Your task to perform on an android device: snooze an email in the gmail app Image 0: 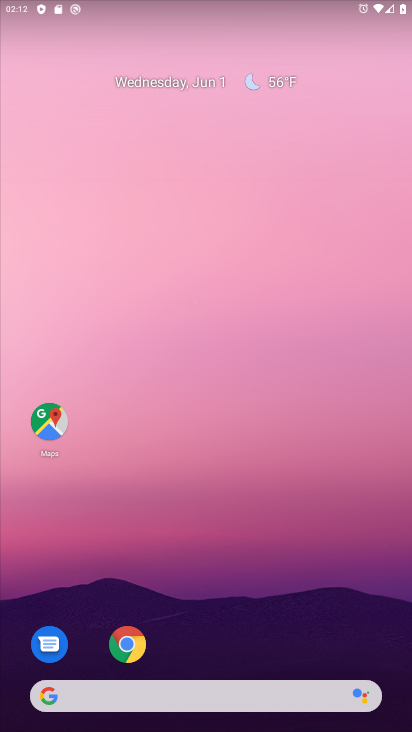
Step 0: drag from (179, 665) to (200, 210)
Your task to perform on an android device: snooze an email in the gmail app Image 1: 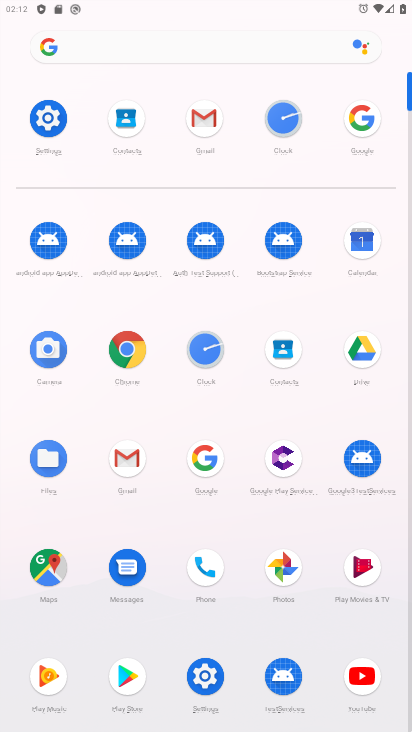
Step 1: click (189, 115)
Your task to perform on an android device: snooze an email in the gmail app Image 2: 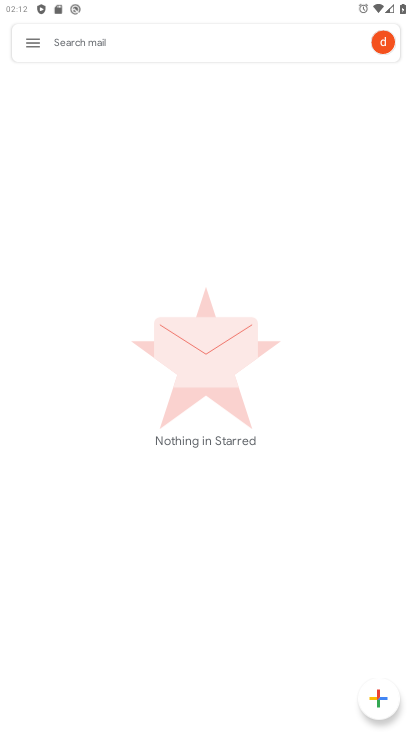
Step 2: click (31, 36)
Your task to perform on an android device: snooze an email in the gmail app Image 3: 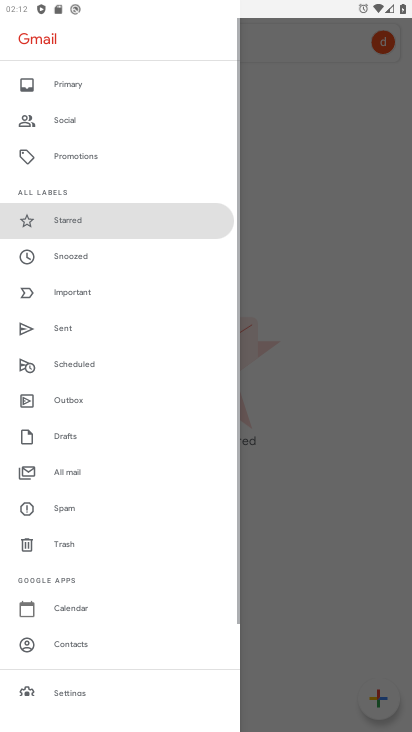
Step 3: click (62, 92)
Your task to perform on an android device: snooze an email in the gmail app Image 4: 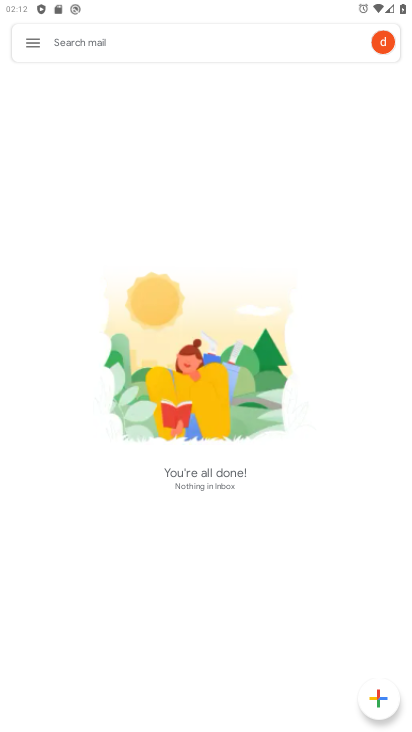
Step 4: task complete